Your task to perform on an android device: Open wifi settings Image 0: 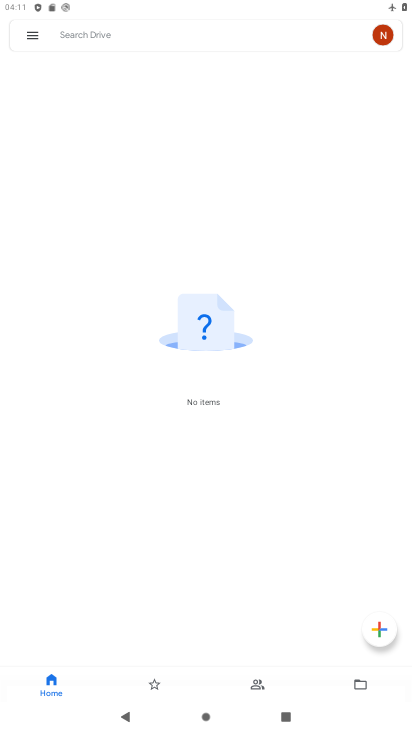
Step 0: press home button
Your task to perform on an android device: Open wifi settings Image 1: 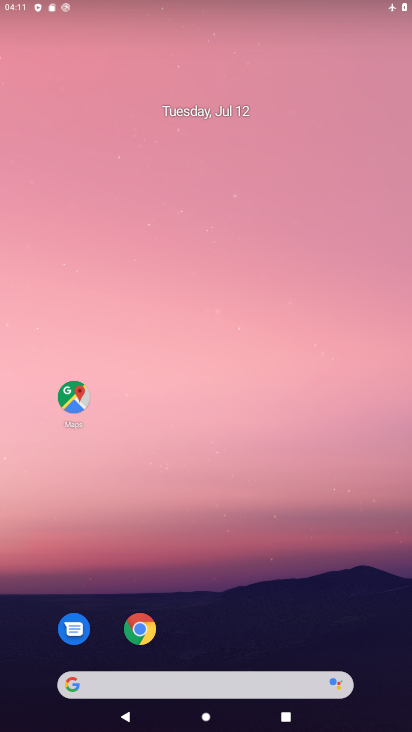
Step 1: drag from (294, 563) to (177, 95)
Your task to perform on an android device: Open wifi settings Image 2: 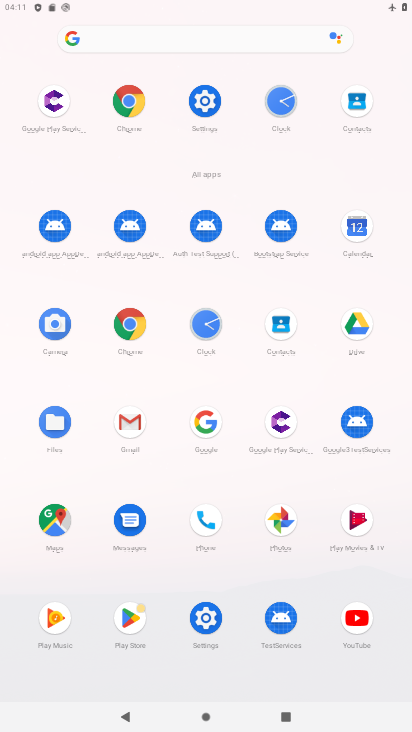
Step 2: click (206, 103)
Your task to perform on an android device: Open wifi settings Image 3: 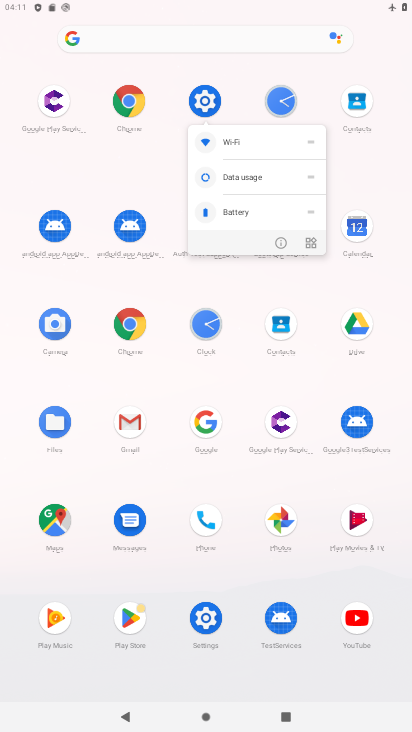
Step 3: click (206, 101)
Your task to perform on an android device: Open wifi settings Image 4: 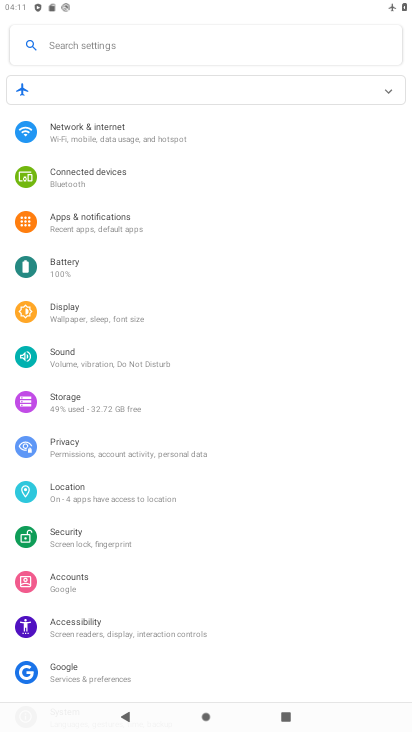
Step 4: click (133, 131)
Your task to perform on an android device: Open wifi settings Image 5: 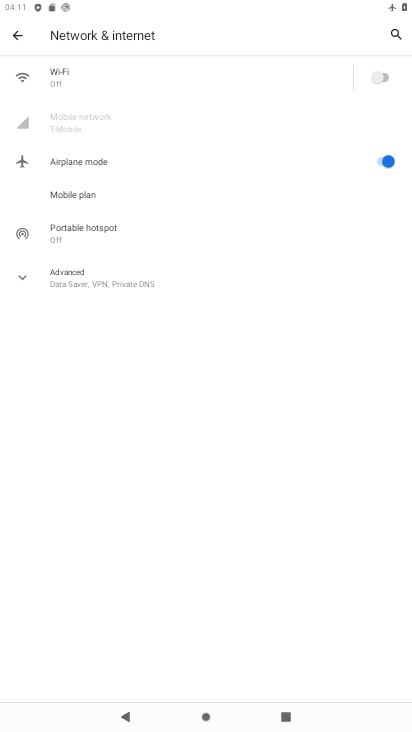
Step 5: click (138, 76)
Your task to perform on an android device: Open wifi settings Image 6: 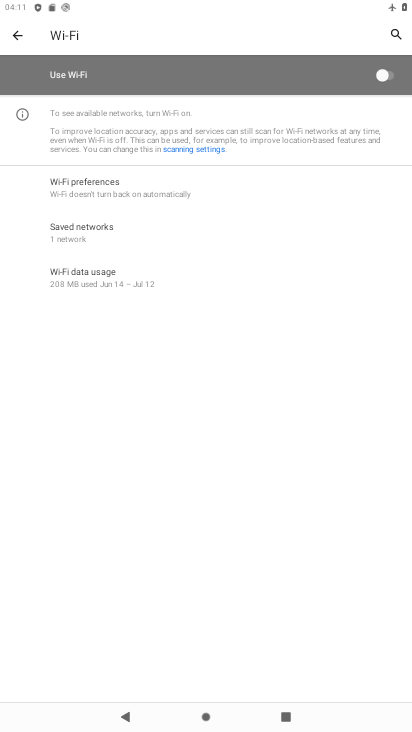
Step 6: click (384, 70)
Your task to perform on an android device: Open wifi settings Image 7: 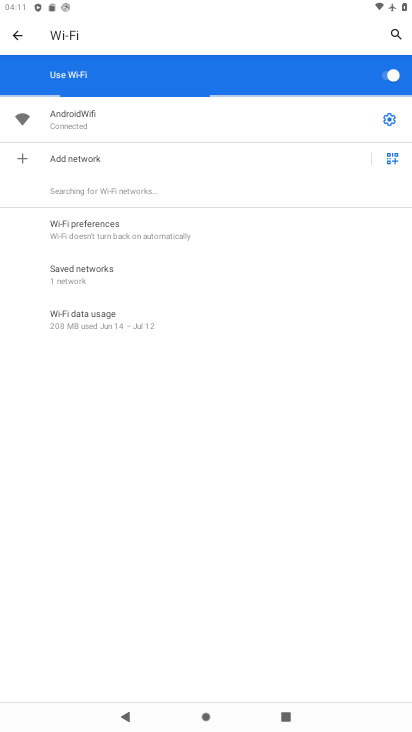
Step 7: click (395, 115)
Your task to perform on an android device: Open wifi settings Image 8: 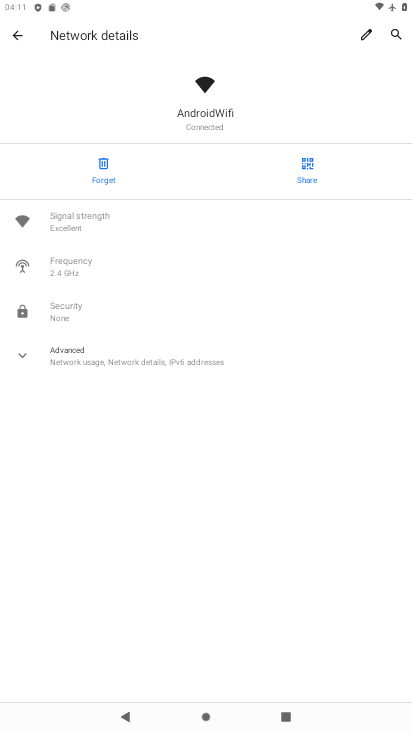
Step 8: task complete